Your task to perform on an android device: refresh tabs in the chrome app Image 0: 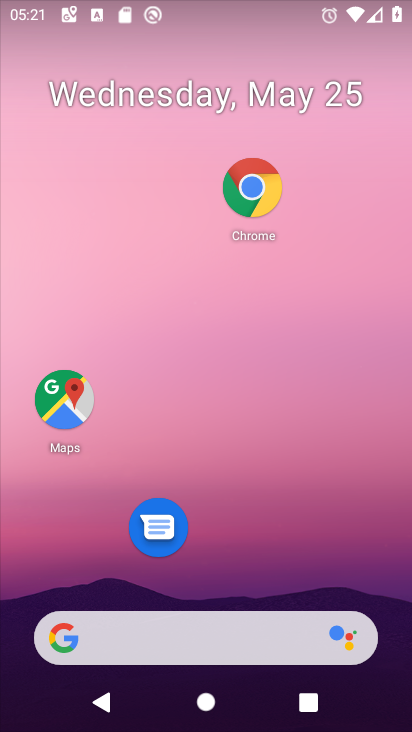
Step 0: drag from (260, 575) to (275, 56)
Your task to perform on an android device: refresh tabs in the chrome app Image 1: 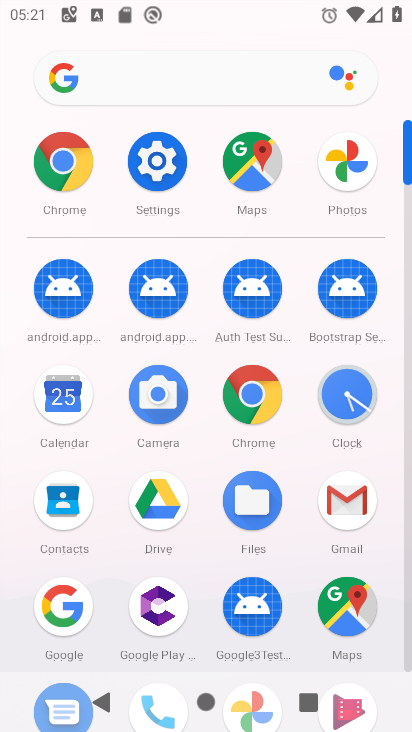
Step 1: click (51, 172)
Your task to perform on an android device: refresh tabs in the chrome app Image 2: 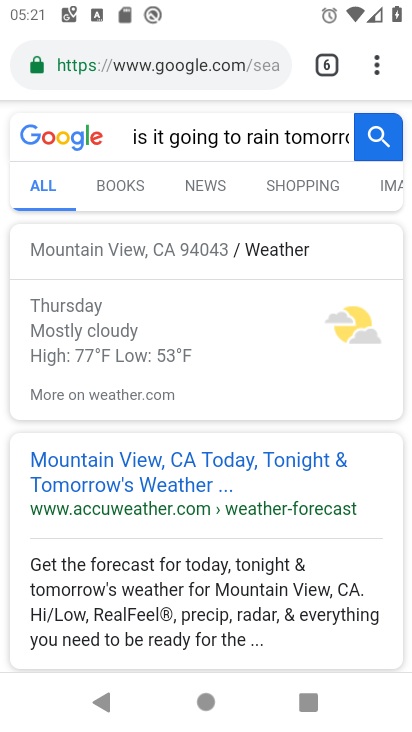
Step 2: click (375, 72)
Your task to perform on an android device: refresh tabs in the chrome app Image 3: 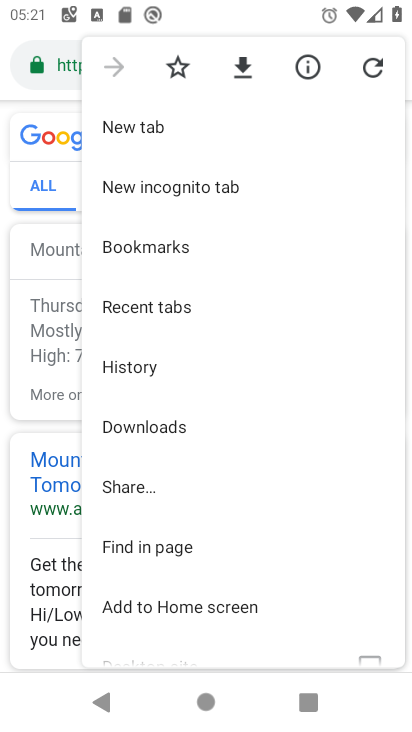
Step 3: click (377, 71)
Your task to perform on an android device: refresh tabs in the chrome app Image 4: 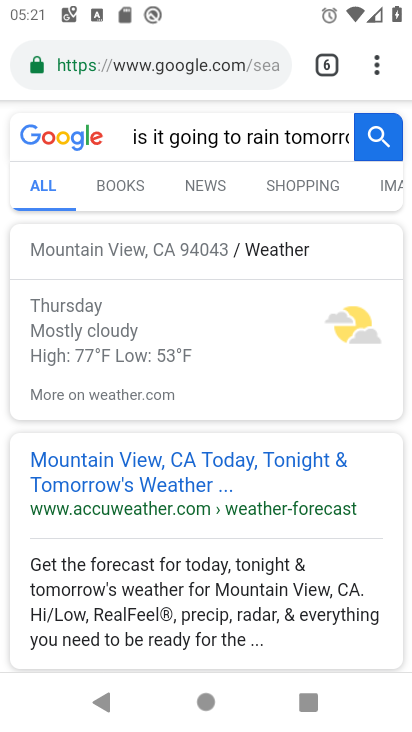
Step 4: click (325, 71)
Your task to perform on an android device: refresh tabs in the chrome app Image 5: 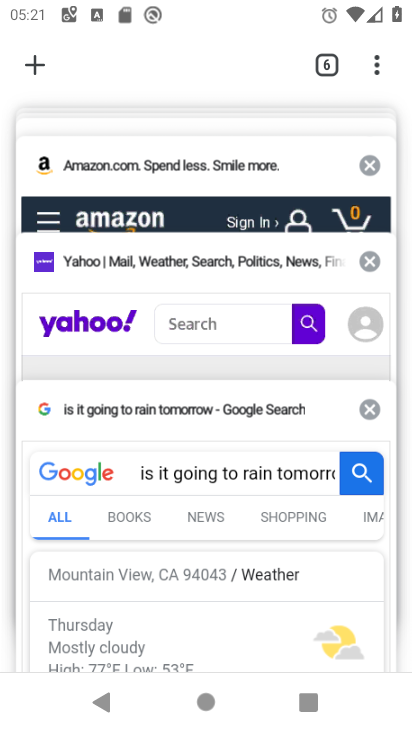
Step 5: click (375, 66)
Your task to perform on an android device: refresh tabs in the chrome app Image 6: 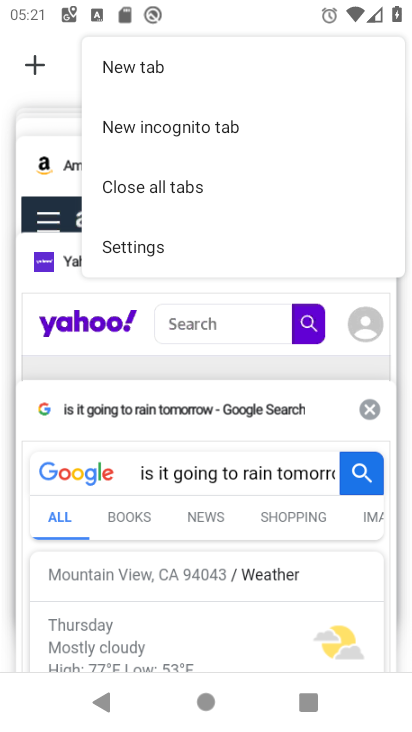
Step 6: click (59, 84)
Your task to perform on an android device: refresh tabs in the chrome app Image 7: 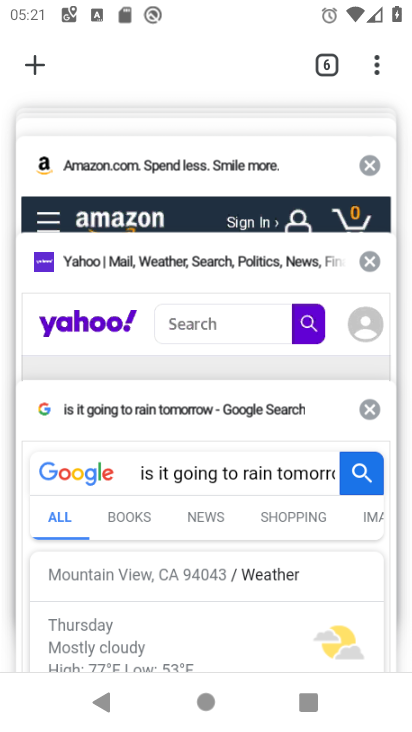
Step 7: click (121, 532)
Your task to perform on an android device: refresh tabs in the chrome app Image 8: 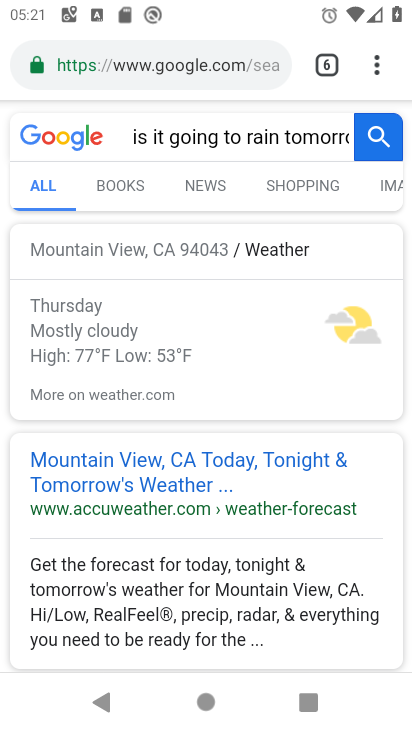
Step 8: click (379, 60)
Your task to perform on an android device: refresh tabs in the chrome app Image 9: 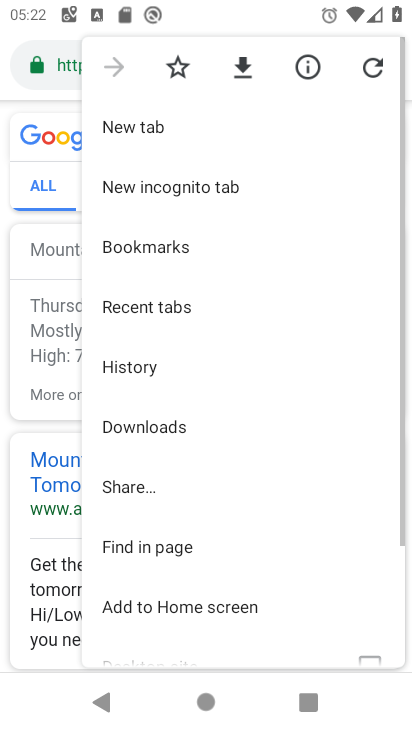
Step 9: click (379, 78)
Your task to perform on an android device: refresh tabs in the chrome app Image 10: 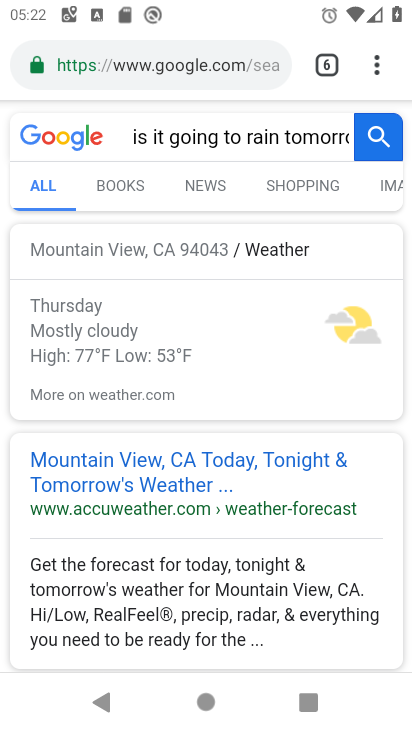
Step 10: task complete